Your task to perform on an android device: clear all cookies in the chrome app Image 0: 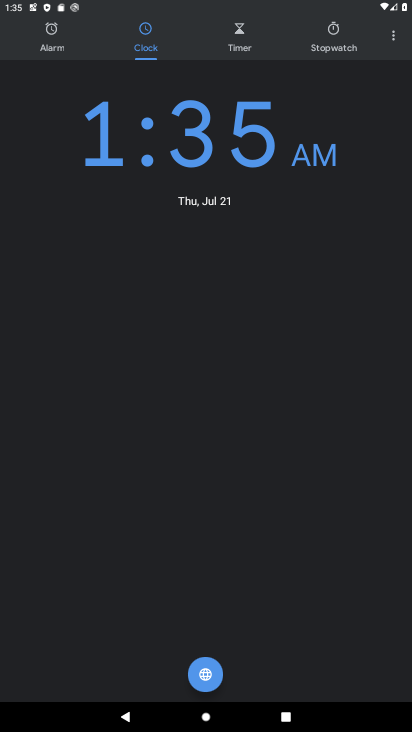
Step 0: press home button
Your task to perform on an android device: clear all cookies in the chrome app Image 1: 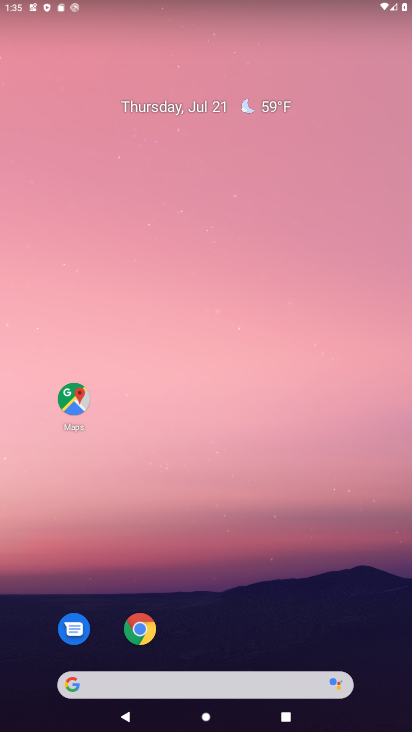
Step 1: click (142, 633)
Your task to perform on an android device: clear all cookies in the chrome app Image 2: 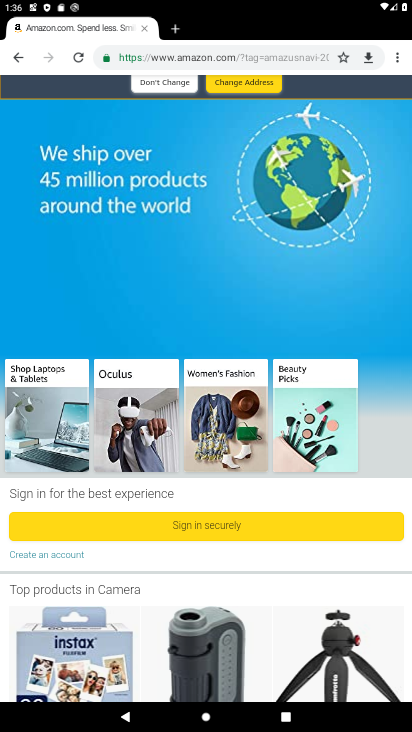
Step 2: click (396, 62)
Your task to perform on an android device: clear all cookies in the chrome app Image 3: 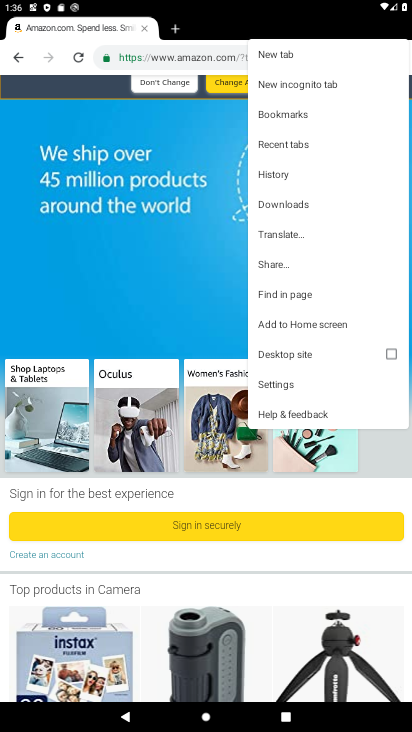
Step 3: click (271, 171)
Your task to perform on an android device: clear all cookies in the chrome app Image 4: 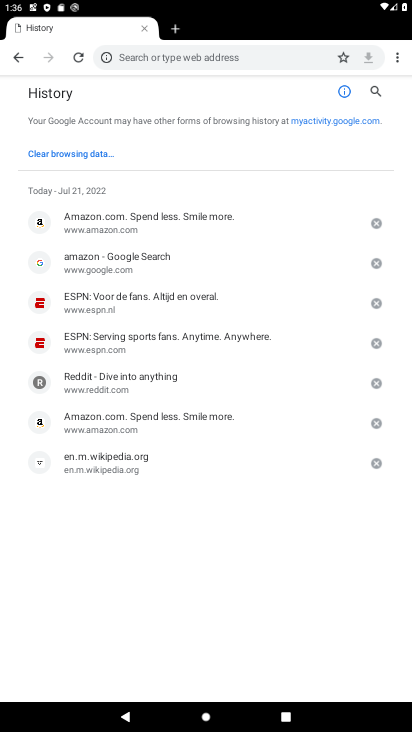
Step 4: click (68, 151)
Your task to perform on an android device: clear all cookies in the chrome app Image 5: 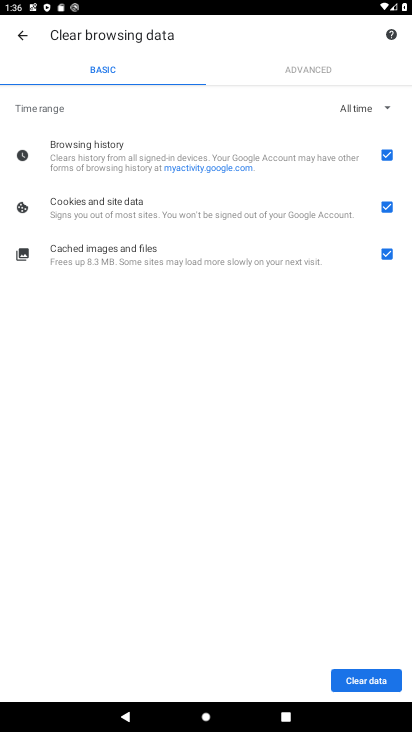
Step 5: click (383, 157)
Your task to perform on an android device: clear all cookies in the chrome app Image 6: 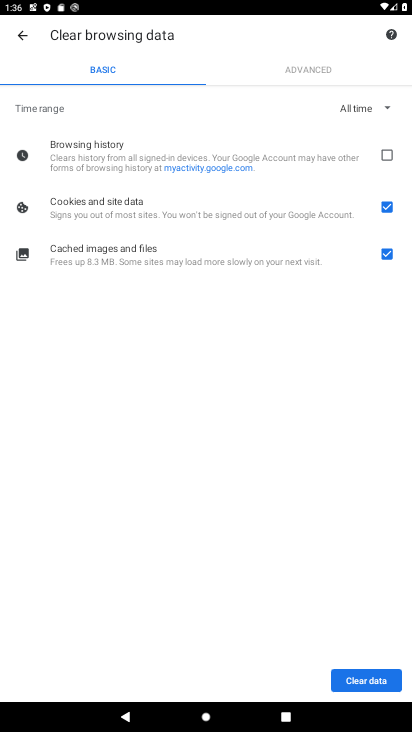
Step 6: click (385, 258)
Your task to perform on an android device: clear all cookies in the chrome app Image 7: 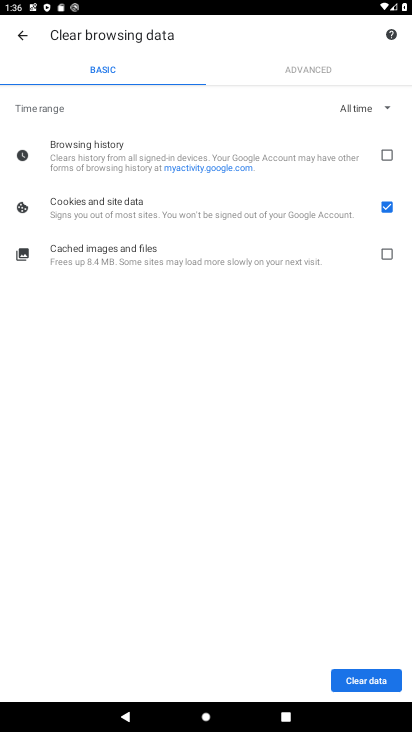
Step 7: click (366, 682)
Your task to perform on an android device: clear all cookies in the chrome app Image 8: 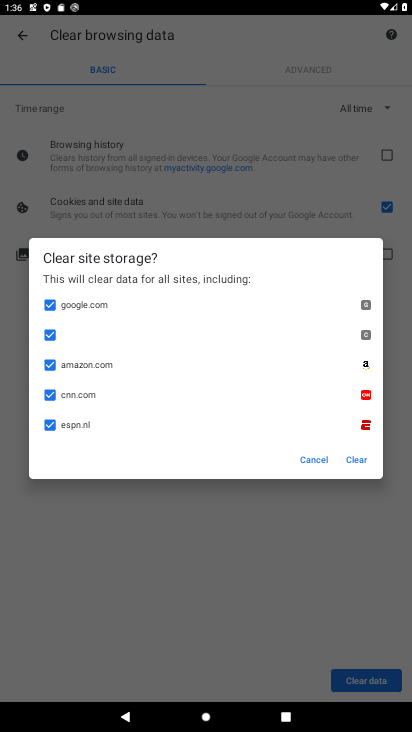
Step 8: click (359, 458)
Your task to perform on an android device: clear all cookies in the chrome app Image 9: 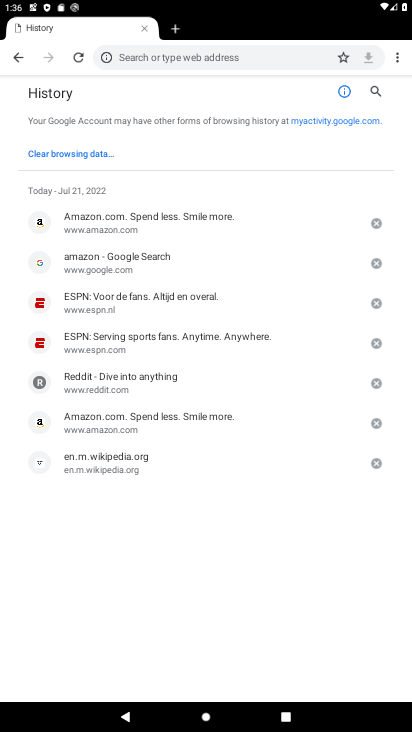
Step 9: task complete